Your task to perform on an android device: turn smart compose on in the gmail app Image 0: 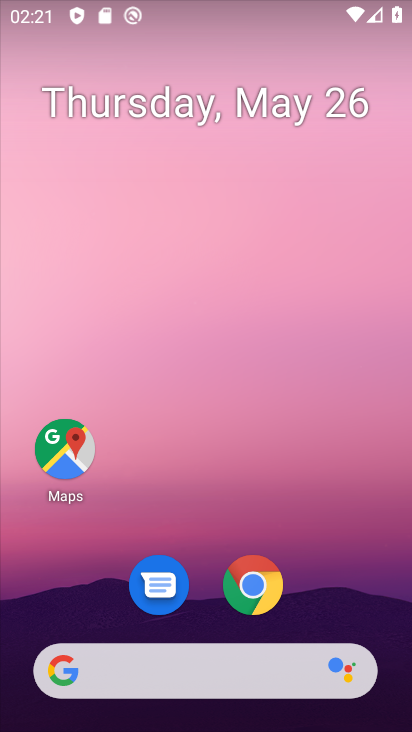
Step 0: drag from (219, 494) to (268, 32)
Your task to perform on an android device: turn smart compose on in the gmail app Image 1: 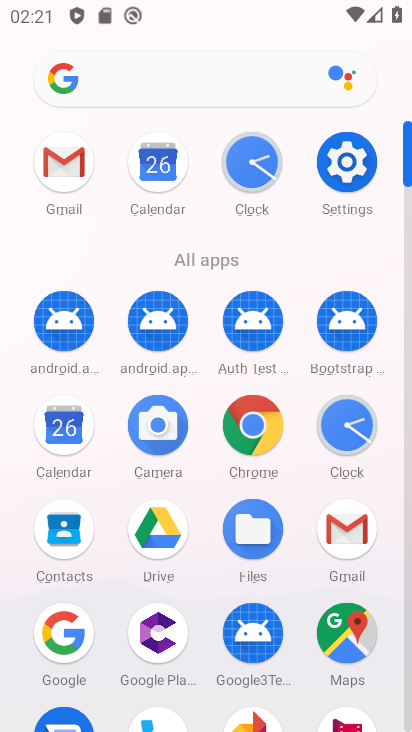
Step 1: click (76, 161)
Your task to perform on an android device: turn smart compose on in the gmail app Image 2: 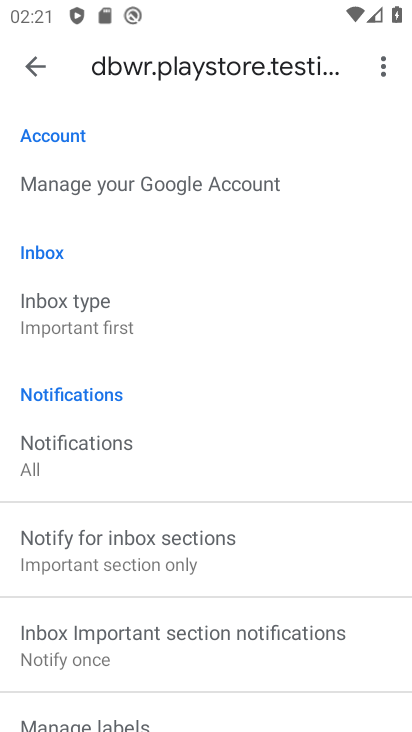
Step 2: task complete